Your task to perform on an android device: Search for vegetarian restaurants on Maps Image 0: 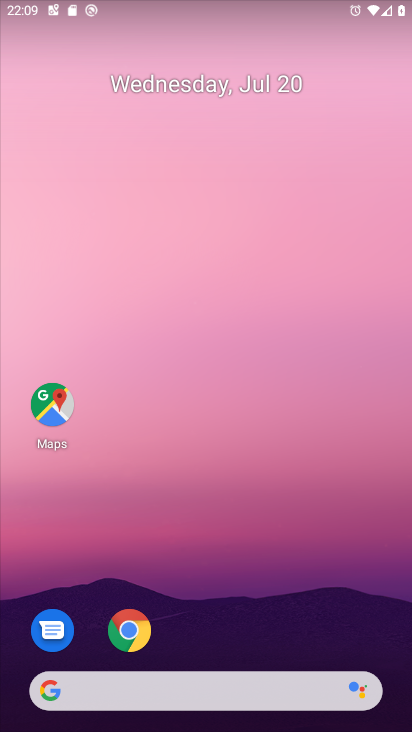
Step 0: click (34, 394)
Your task to perform on an android device: Search for vegetarian restaurants on Maps Image 1: 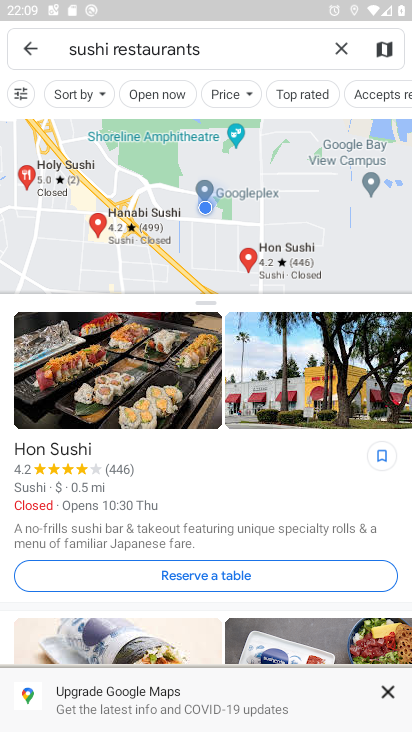
Step 1: click (342, 46)
Your task to perform on an android device: Search for vegetarian restaurants on Maps Image 2: 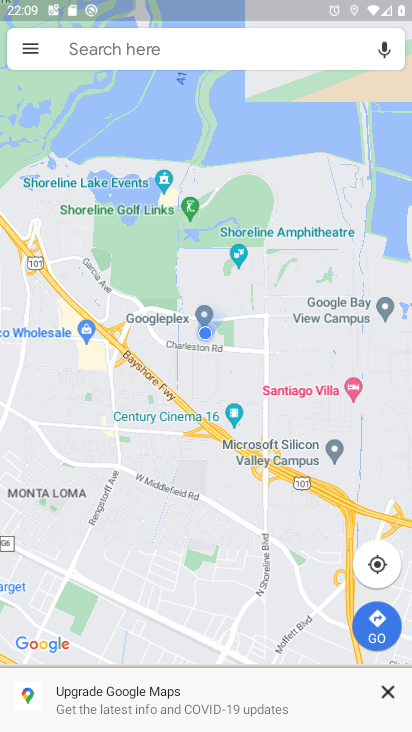
Step 2: click (186, 48)
Your task to perform on an android device: Search for vegetarian restaurants on Maps Image 3: 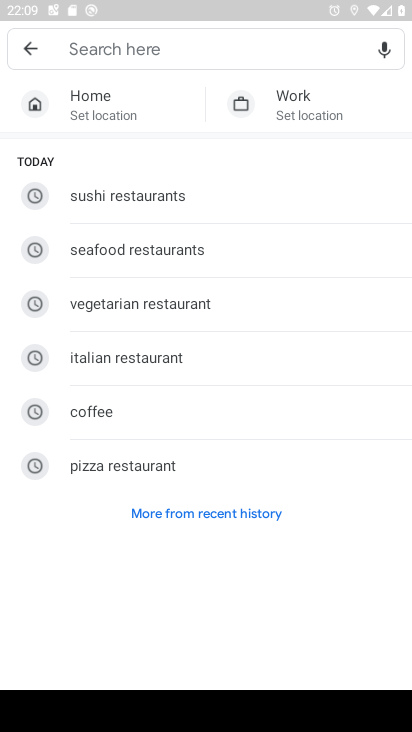
Step 3: click (160, 305)
Your task to perform on an android device: Search for vegetarian restaurants on Maps Image 4: 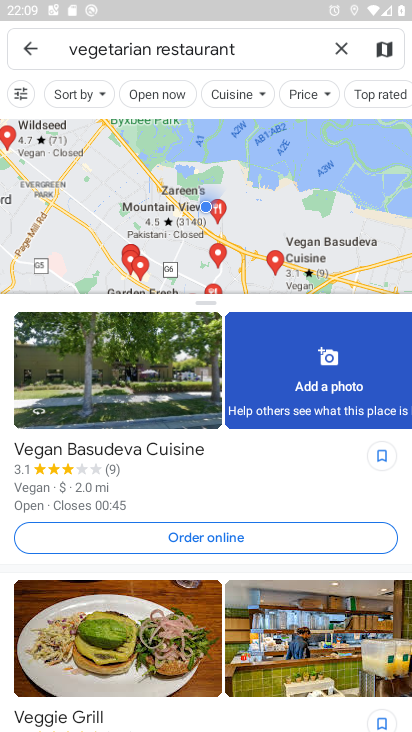
Step 4: task complete